Your task to perform on an android device: visit the assistant section in the google photos Image 0: 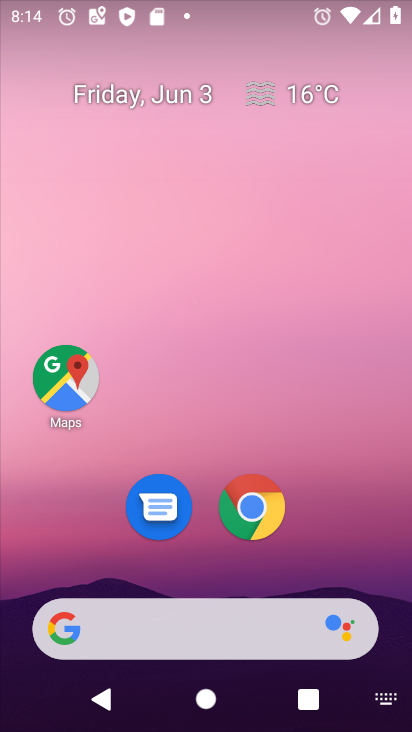
Step 0: drag from (327, 341) to (226, 1)
Your task to perform on an android device: visit the assistant section in the google photos Image 1: 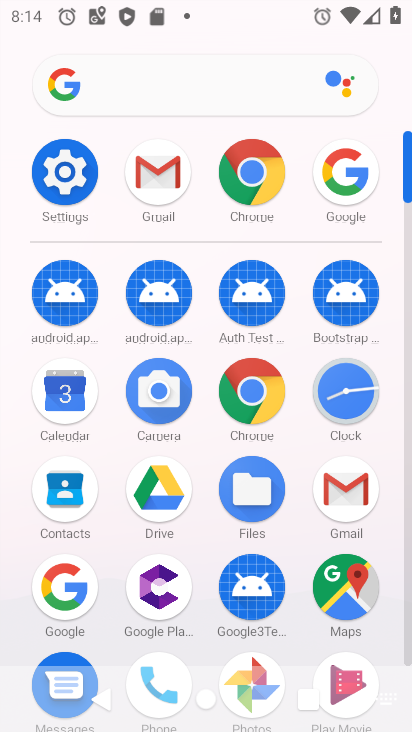
Step 1: click (270, 662)
Your task to perform on an android device: visit the assistant section in the google photos Image 2: 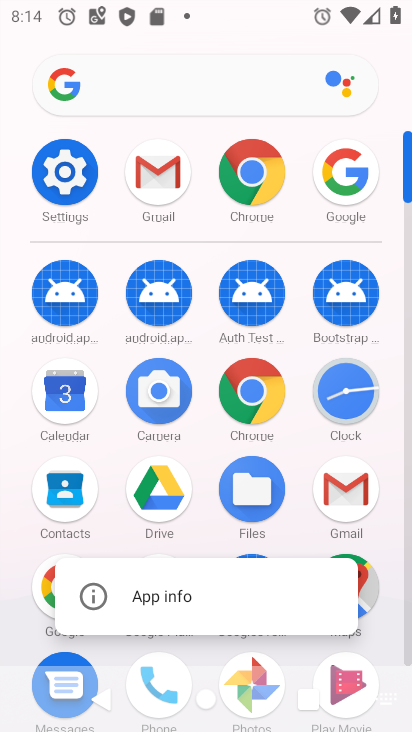
Step 2: click (254, 658)
Your task to perform on an android device: visit the assistant section in the google photos Image 3: 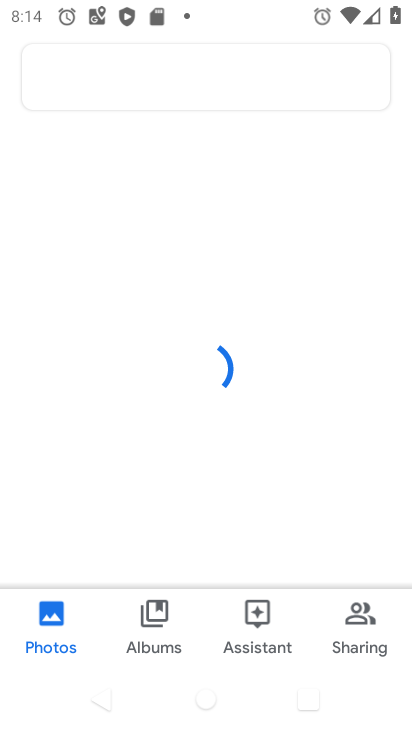
Step 3: click (260, 635)
Your task to perform on an android device: visit the assistant section in the google photos Image 4: 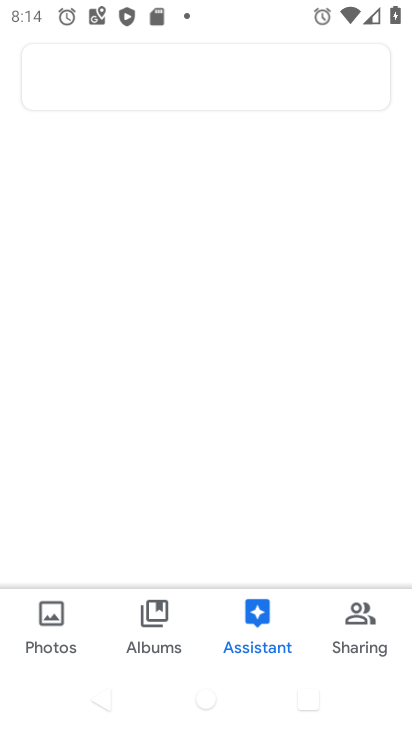
Step 4: task complete